Your task to perform on an android device: Open privacy settings Image 0: 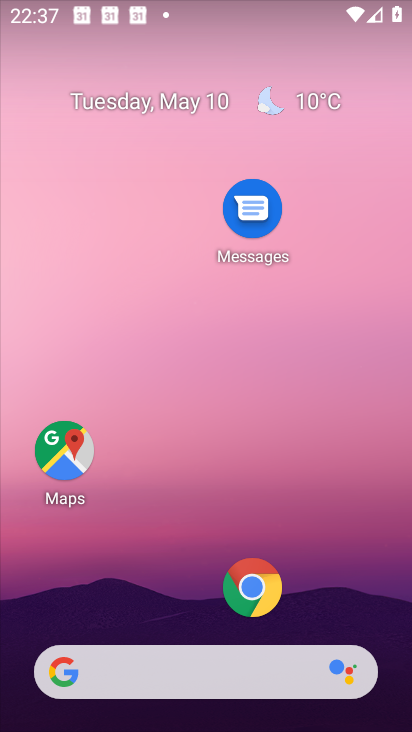
Step 0: drag from (179, 580) to (258, 198)
Your task to perform on an android device: Open privacy settings Image 1: 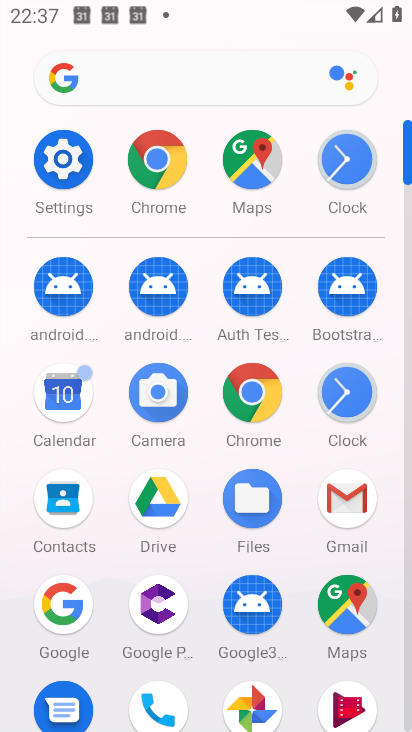
Step 1: click (63, 170)
Your task to perform on an android device: Open privacy settings Image 2: 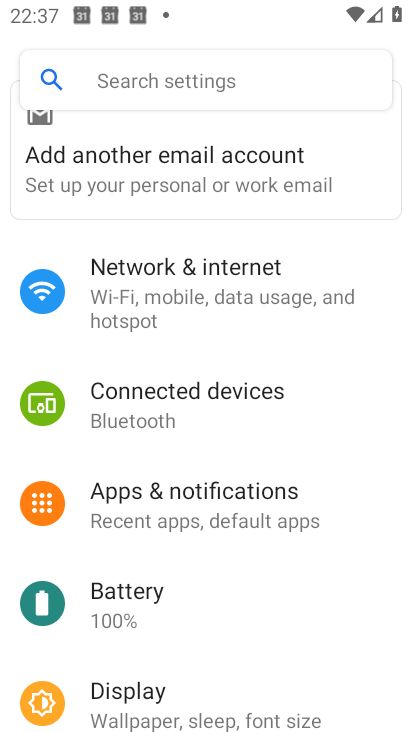
Step 2: drag from (167, 558) to (219, 311)
Your task to perform on an android device: Open privacy settings Image 3: 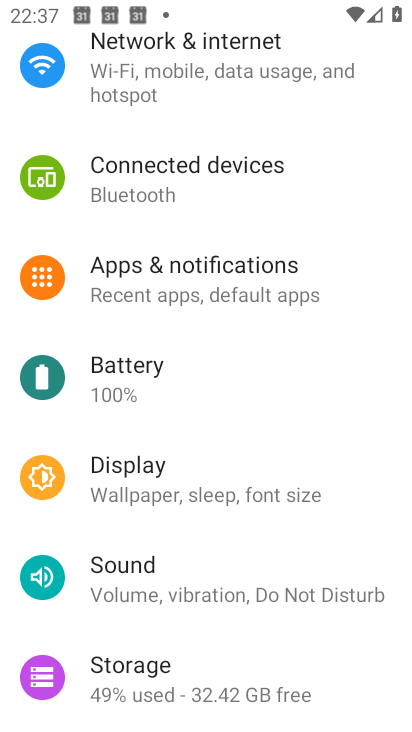
Step 3: drag from (165, 598) to (190, 414)
Your task to perform on an android device: Open privacy settings Image 4: 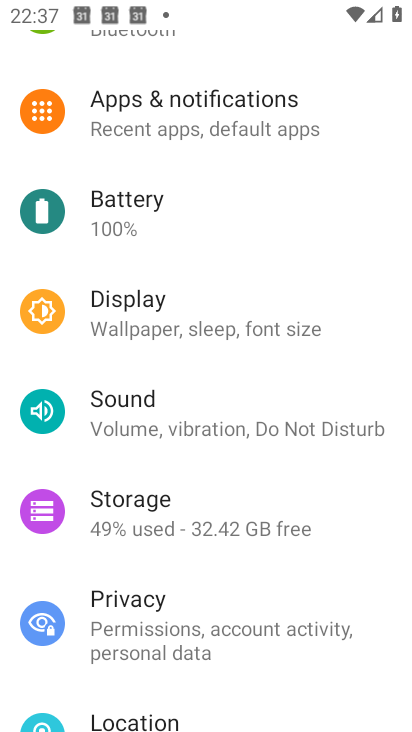
Step 4: click (148, 607)
Your task to perform on an android device: Open privacy settings Image 5: 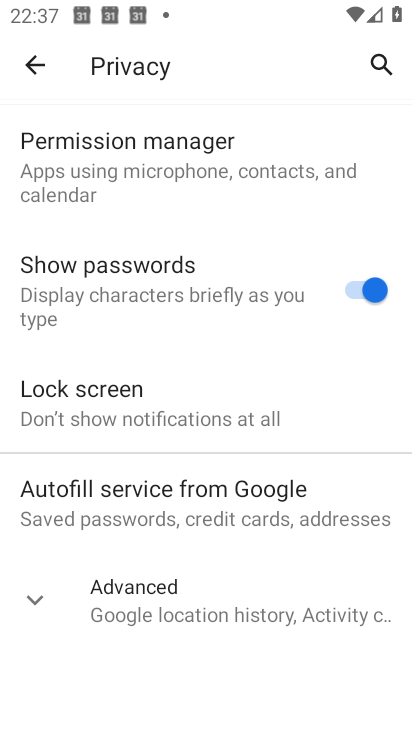
Step 5: task complete